Your task to perform on an android device: Open eBay Image 0: 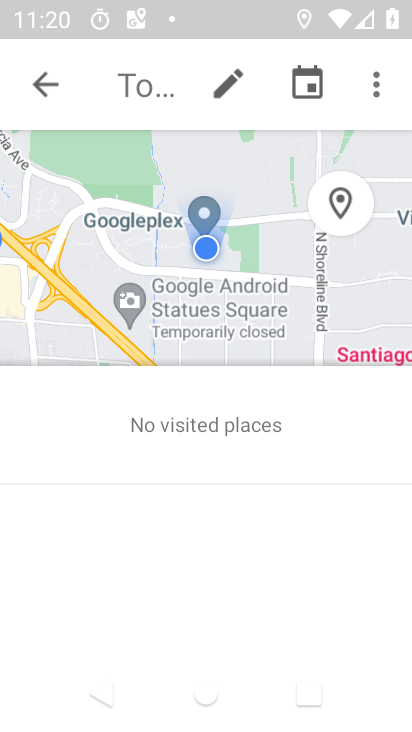
Step 0: press home button
Your task to perform on an android device: Open eBay Image 1: 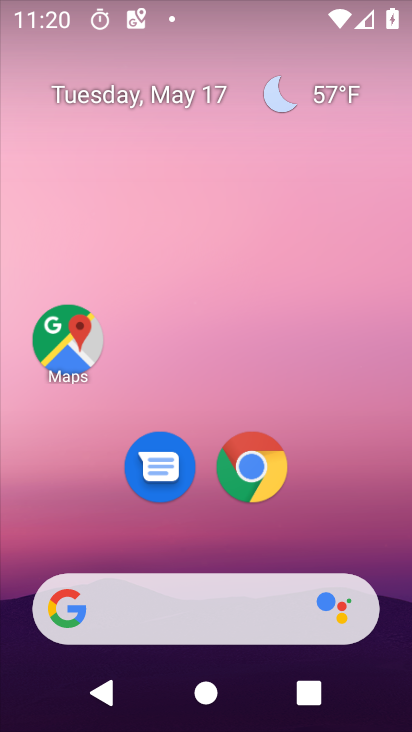
Step 1: click (240, 472)
Your task to perform on an android device: Open eBay Image 2: 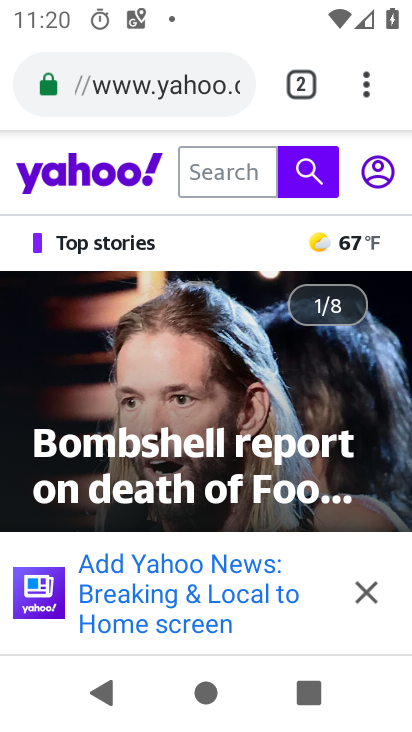
Step 2: click (303, 85)
Your task to perform on an android device: Open eBay Image 3: 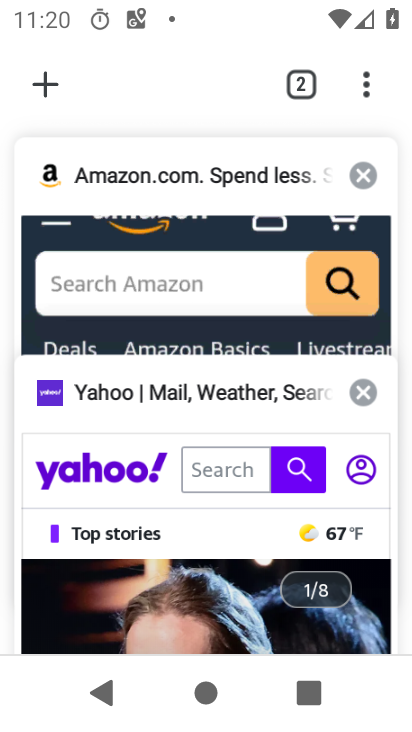
Step 3: click (360, 393)
Your task to perform on an android device: Open eBay Image 4: 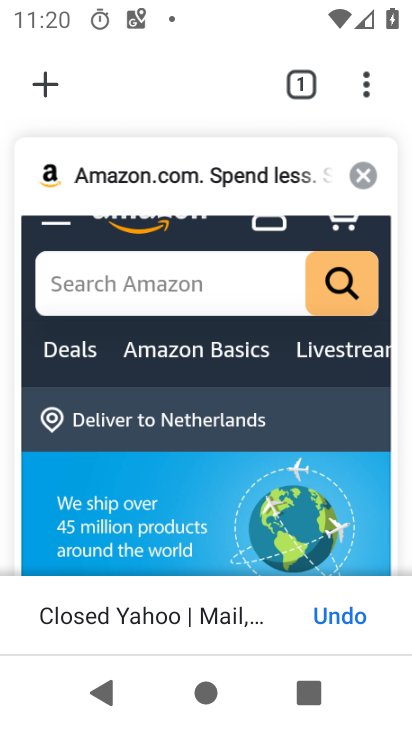
Step 4: click (365, 175)
Your task to perform on an android device: Open eBay Image 5: 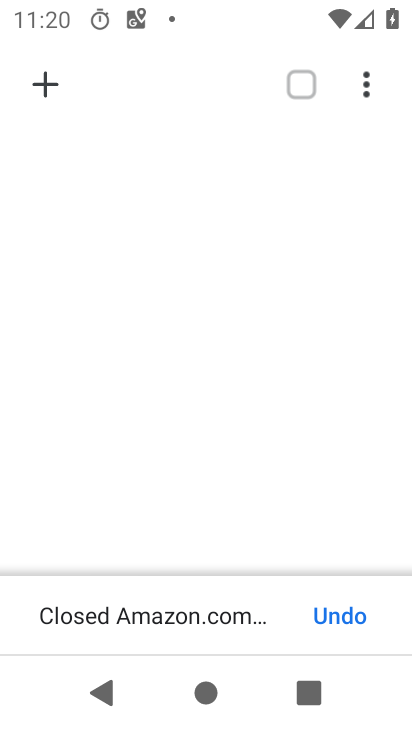
Step 5: click (47, 84)
Your task to perform on an android device: Open eBay Image 6: 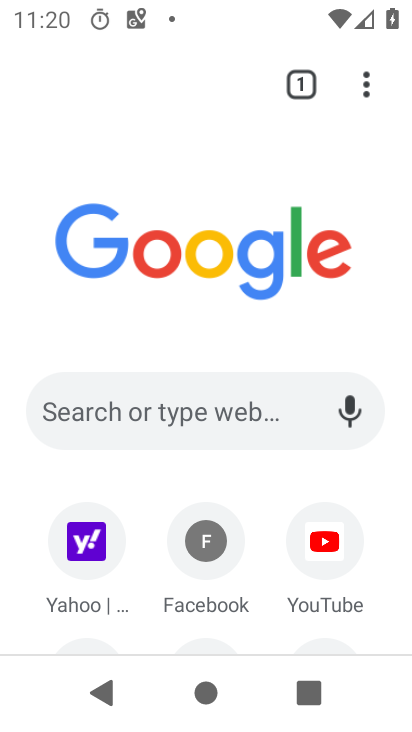
Step 6: drag from (228, 614) to (228, 278)
Your task to perform on an android device: Open eBay Image 7: 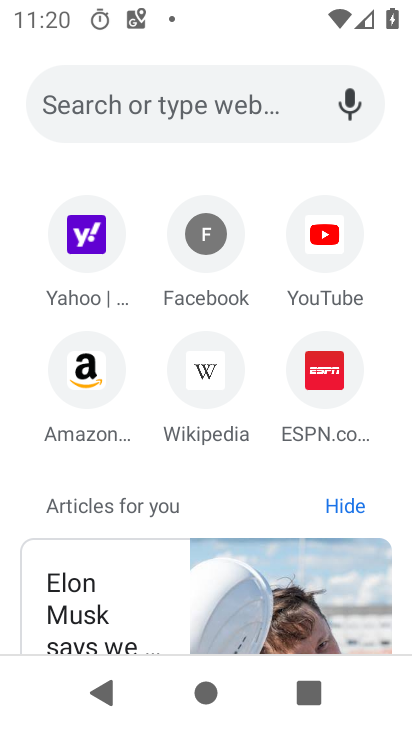
Step 7: click (144, 99)
Your task to perform on an android device: Open eBay Image 8: 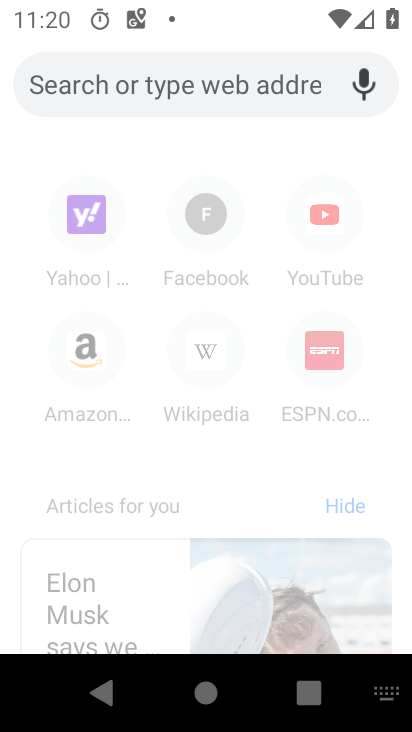
Step 8: type "ebay.com"
Your task to perform on an android device: Open eBay Image 9: 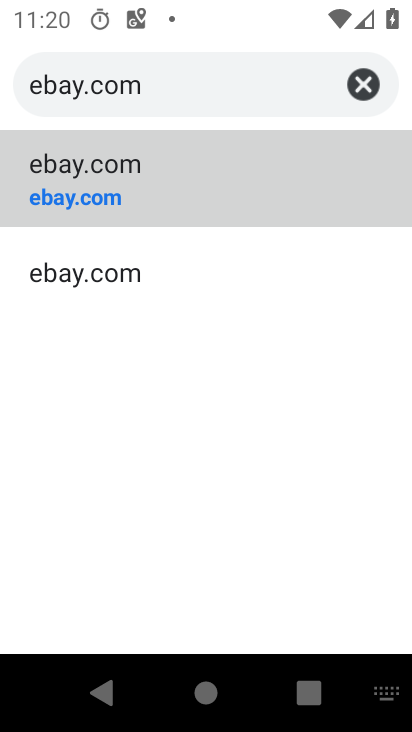
Step 9: click (151, 191)
Your task to perform on an android device: Open eBay Image 10: 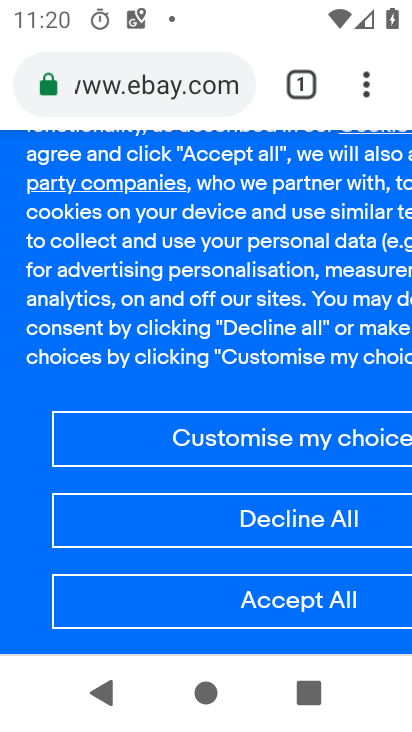
Step 10: task complete